Your task to perform on an android device: Open the stopwatch Image 0: 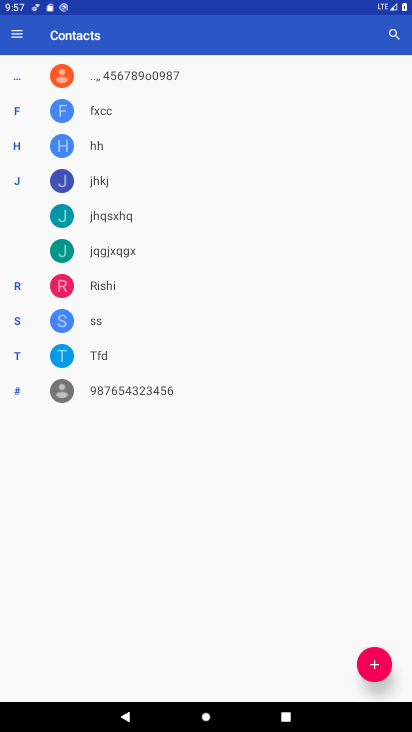
Step 0: press home button
Your task to perform on an android device: Open the stopwatch Image 1: 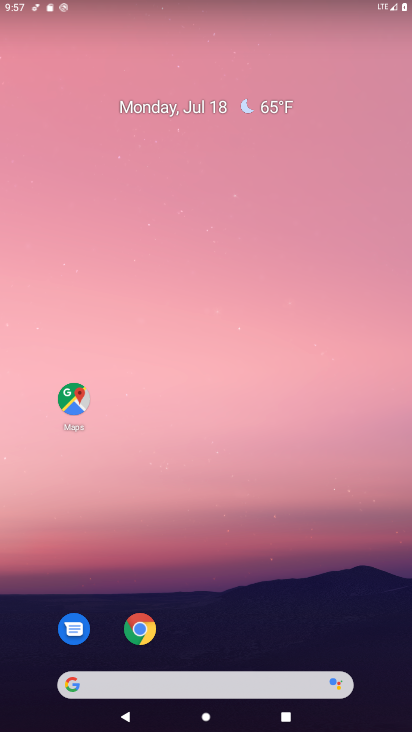
Step 1: drag from (235, 556) to (173, 158)
Your task to perform on an android device: Open the stopwatch Image 2: 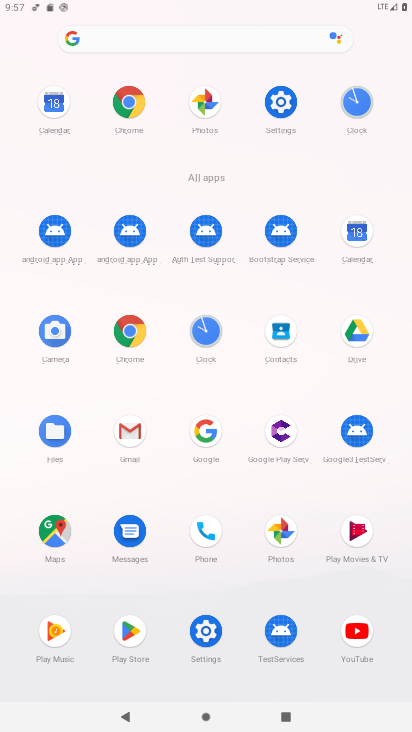
Step 2: click (357, 104)
Your task to perform on an android device: Open the stopwatch Image 3: 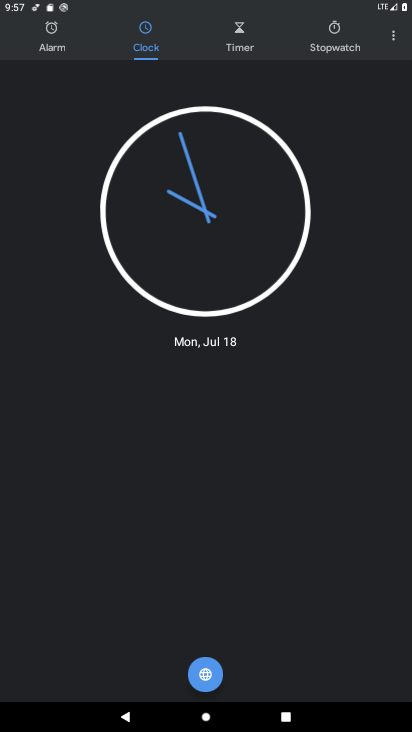
Step 3: click (335, 33)
Your task to perform on an android device: Open the stopwatch Image 4: 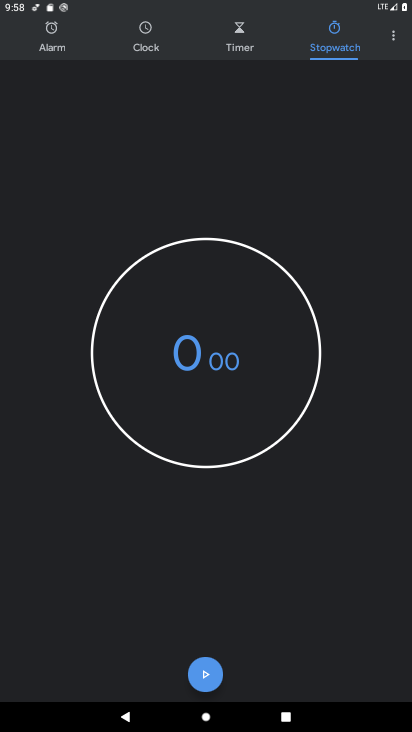
Step 4: task complete